Your task to perform on an android device: check storage Image 0: 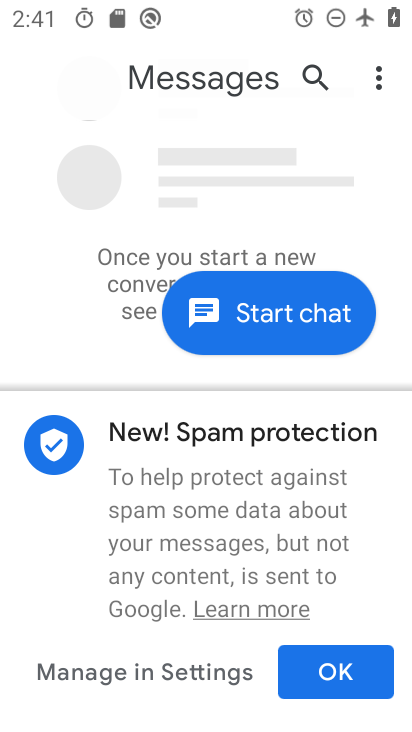
Step 0: press home button
Your task to perform on an android device: check storage Image 1: 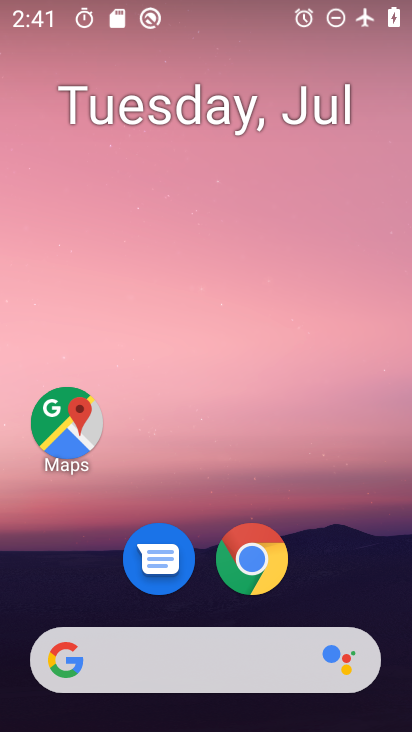
Step 1: drag from (321, 532) to (331, 167)
Your task to perform on an android device: check storage Image 2: 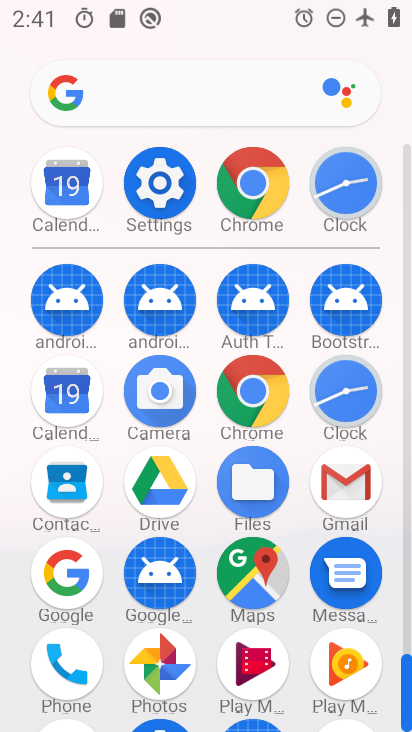
Step 2: click (165, 193)
Your task to perform on an android device: check storage Image 3: 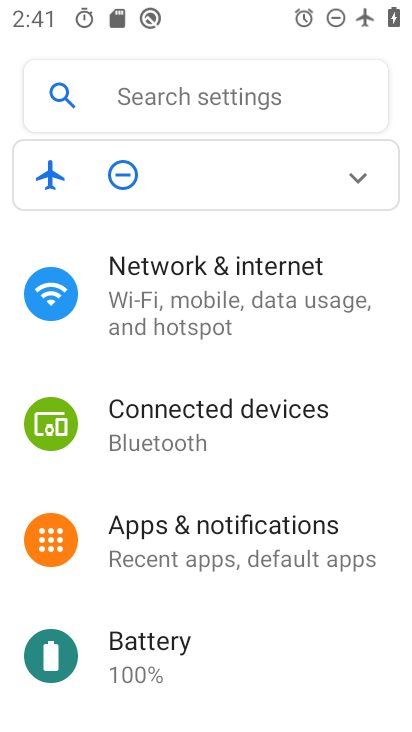
Step 3: drag from (362, 464) to (365, 403)
Your task to perform on an android device: check storage Image 4: 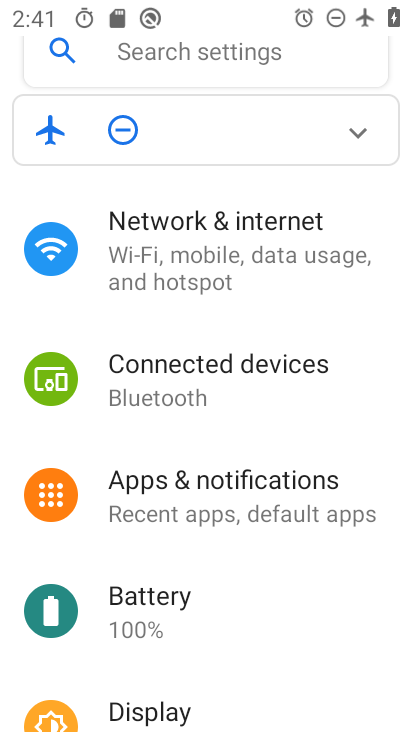
Step 4: drag from (372, 553) to (363, 455)
Your task to perform on an android device: check storage Image 5: 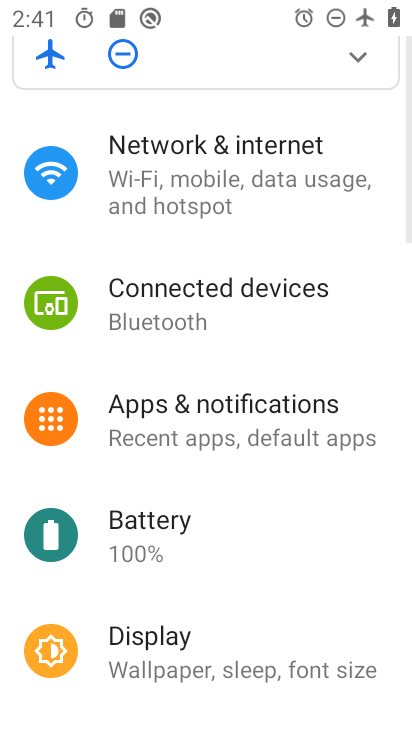
Step 5: drag from (358, 545) to (358, 452)
Your task to perform on an android device: check storage Image 6: 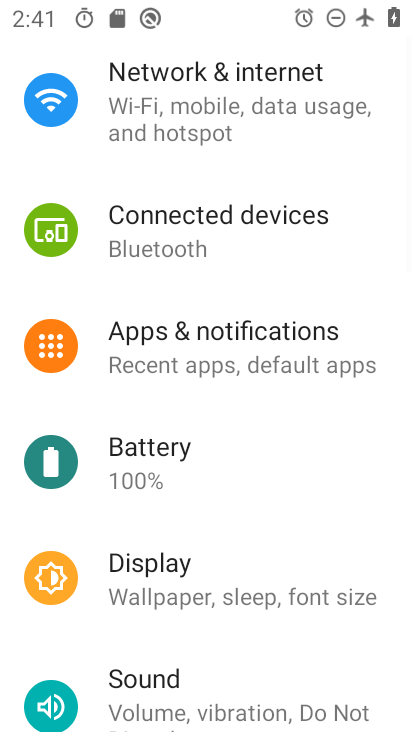
Step 6: drag from (346, 530) to (347, 425)
Your task to perform on an android device: check storage Image 7: 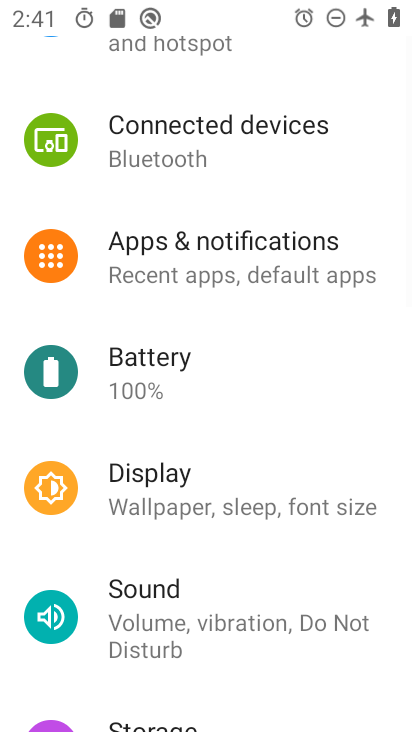
Step 7: drag from (342, 563) to (341, 421)
Your task to perform on an android device: check storage Image 8: 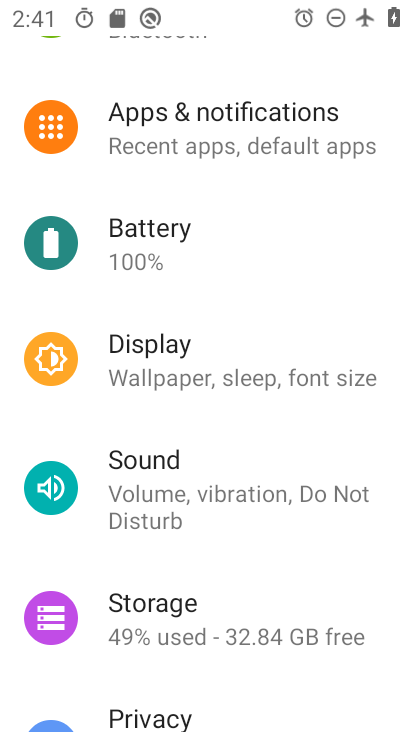
Step 8: drag from (342, 556) to (341, 432)
Your task to perform on an android device: check storage Image 9: 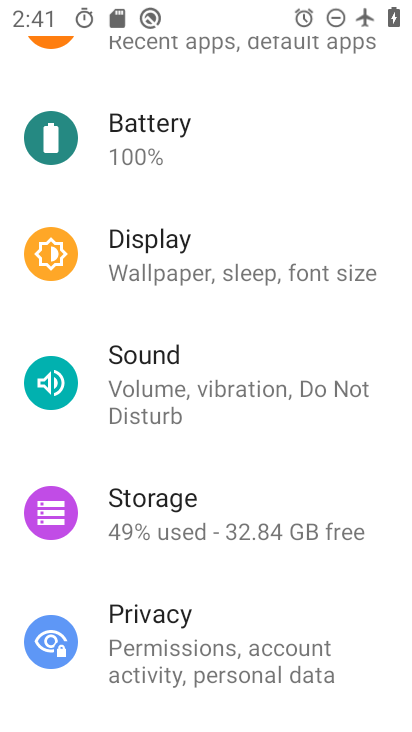
Step 9: drag from (339, 588) to (338, 409)
Your task to perform on an android device: check storage Image 10: 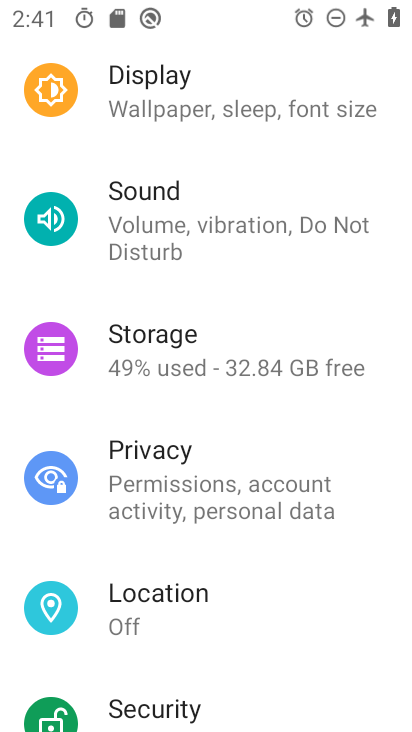
Step 10: click (346, 373)
Your task to perform on an android device: check storage Image 11: 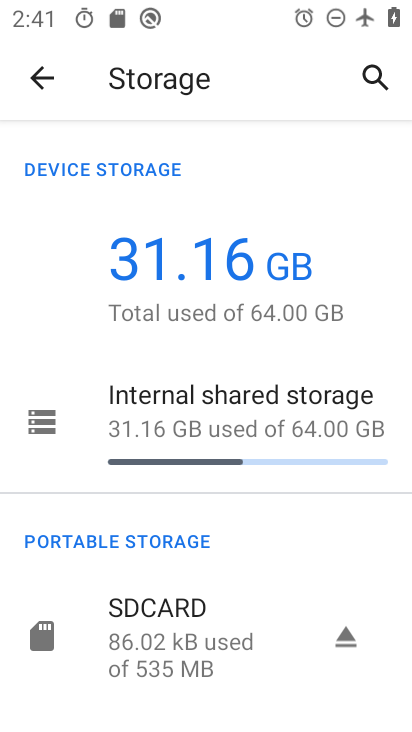
Step 11: task complete